Your task to perform on an android device: turn on translation in the chrome app Image 0: 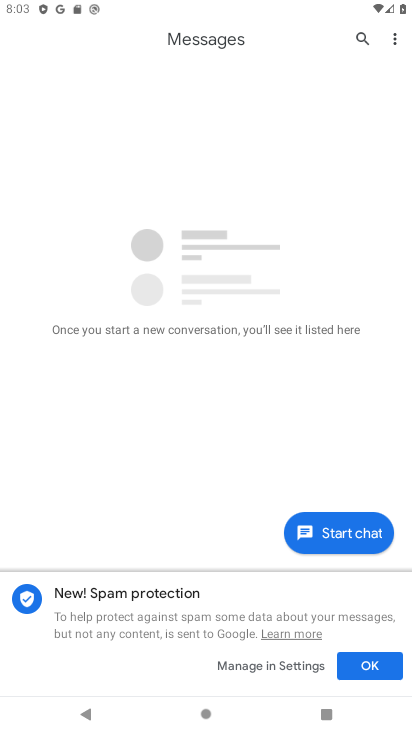
Step 0: press back button
Your task to perform on an android device: turn on translation in the chrome app Image 1: 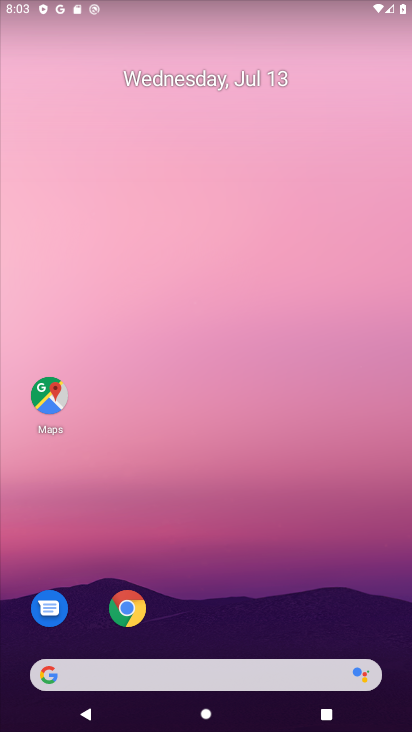
Step 1: drag from (252, 261) to (206, 60)
Your task to perform on an android device: turn on translation in the chrome app Image 2: 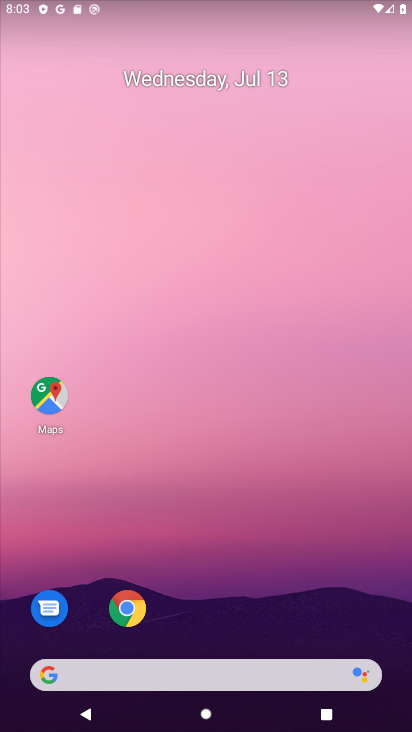
Step 2: drag from (254, 684) to (129, 124)
Your task to perform on an android device: turn on translation in the chrome app Image 3: 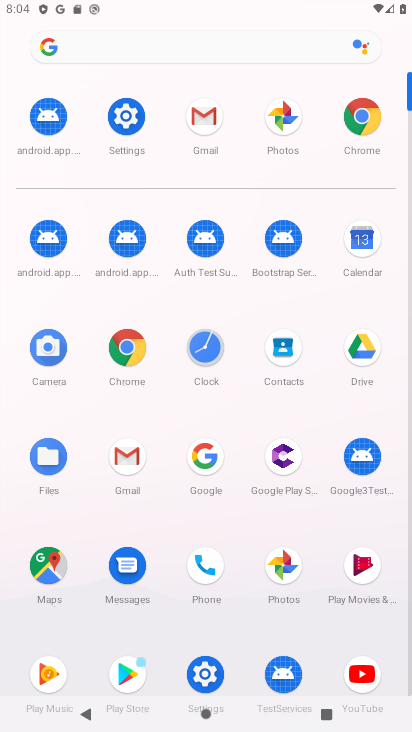
Step 3: click (119, 344)
Your task to perform on an android device: turn on translation in the chrome app Image 4: 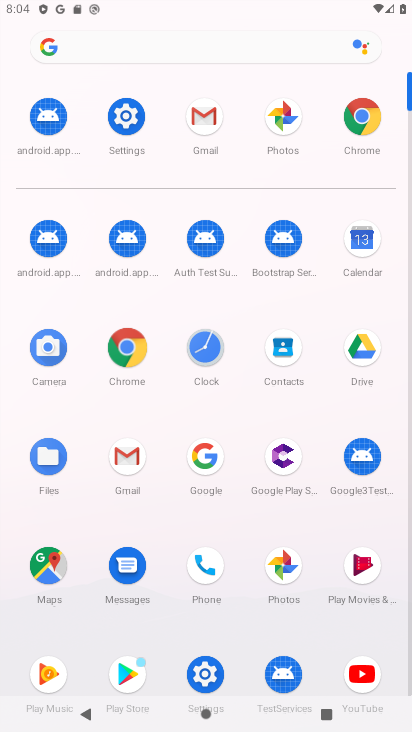
Step 4: click (121, 343)
Your task to perform on an android device: turn on translation in the chrome app Image 5: 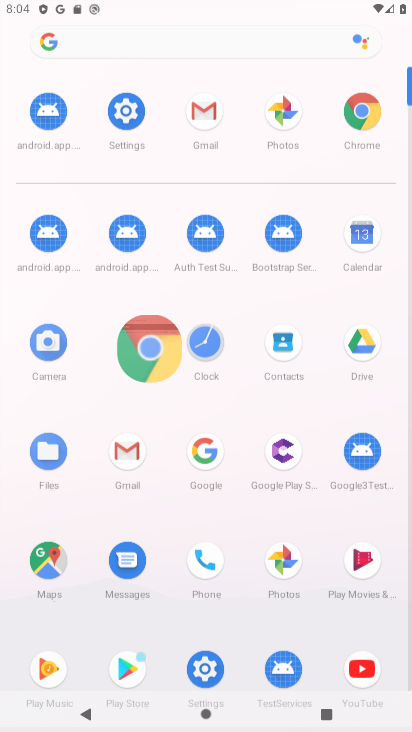
Step 5: click (121, 343)
Your task to perform on an android device: turn on translation in the chrome app Image 6: 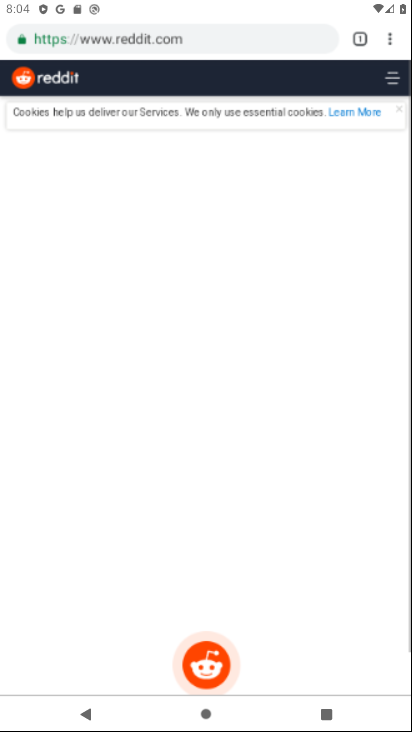
Step 6: click (123, 340)
Your task to perform on an android device: turn on translation in the chrome app Image 7: 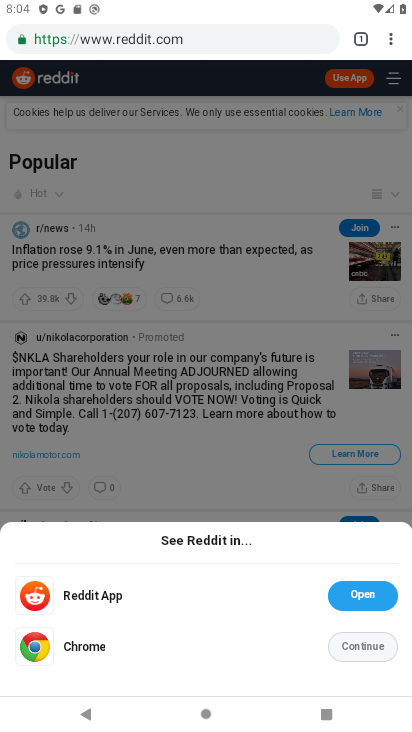
Step 7: drag from (385, 40) to (253, 468)
Your task to perform on an android device: turn on translation in the chrome app Image 8: 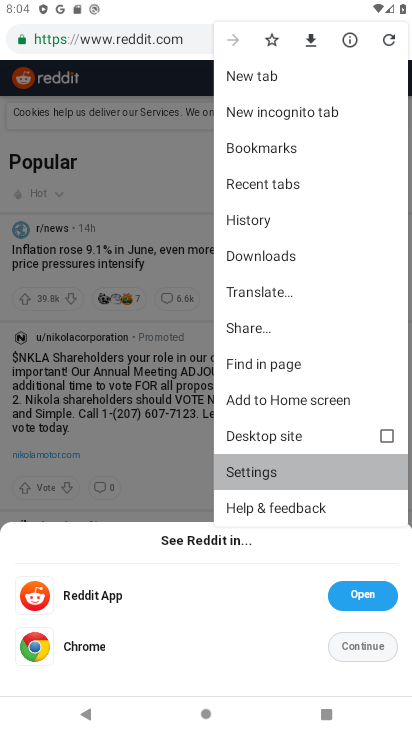
Step 8: click (249, 468)
Your task to perform on an android device: turn on translation in the chrome app Image 9: 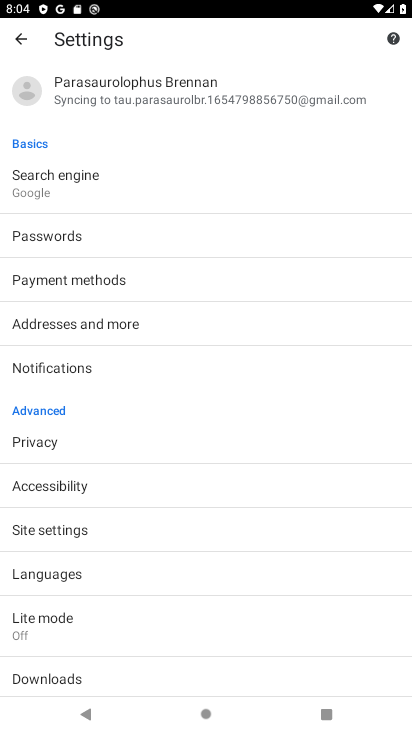
Step 9: click (68, 569)
Your task to perform on an android device: turn on translation in the chrome app Image 10: 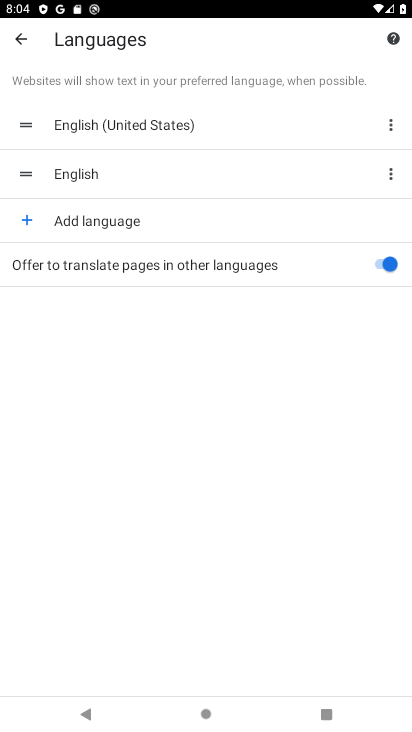
Step 10: task complete